Your task to perform on an android device: Go to Yahoo.com Image 0: 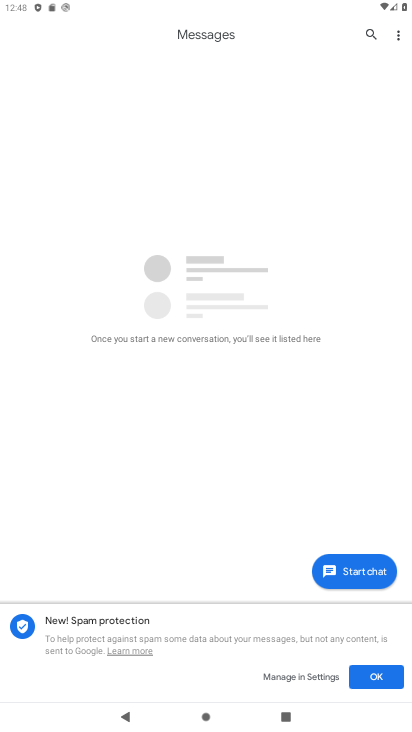
Step 0: press home button
Your task to perform on an android device: Go to Yahoo.com Image 1: 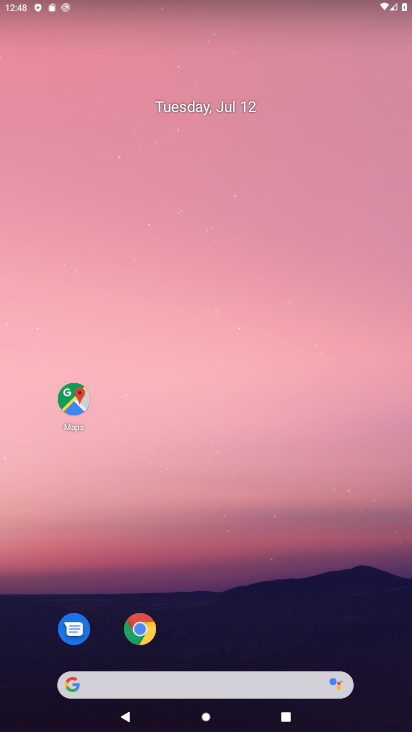
Step 1: click (140, 634)
Your task to perform on an android device: Go to Yahoo.com Image 2: 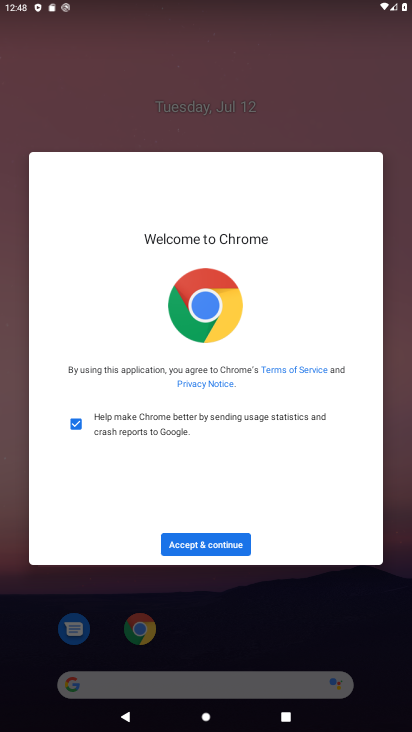
Step 2: click (213, 537)
Your task to perform on an android device: Go to Yahoo.com Image 3: 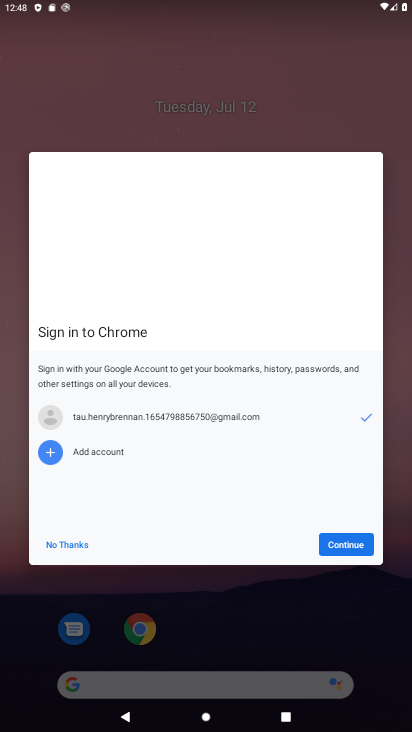
Step 3: click (333, 530)
Your task to perform on an android device: Go to Yahoo.com Image 4: 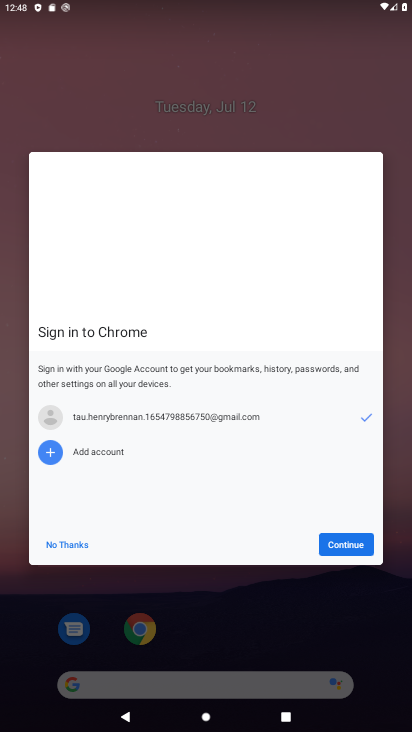
Step 4: click (329, 544)
Your task to perform on an android device: Go to Yahoo.com Image 5: 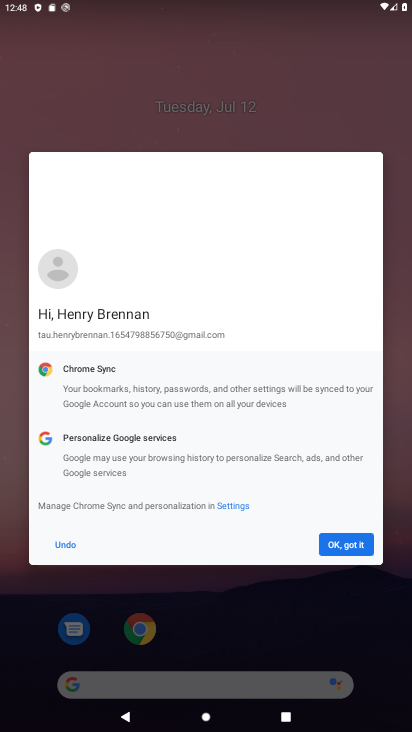
Step 5: click (327, 545)
Your task to perform on an android device: Go to Yahoo.com Image 6: 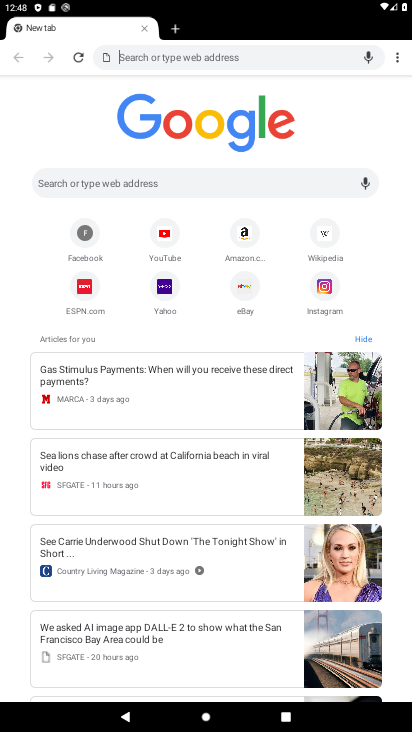
Step 6: click (168, 304)
Your task to perform on an android device: Go to Yahoo.com Image 7: 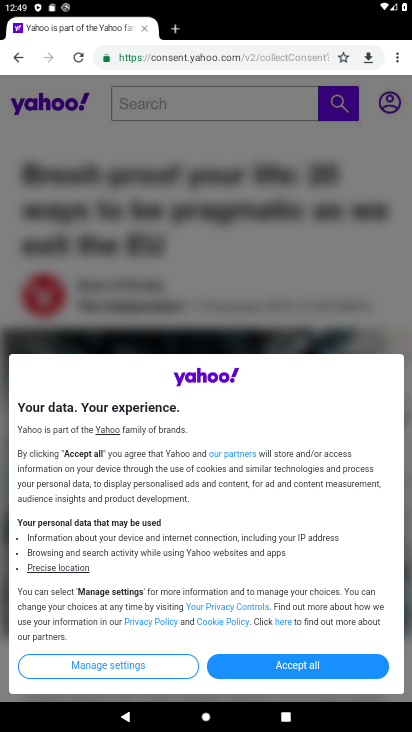
Step 7: click (283, 660)
Your task to perform on an android device: Go to Yahoo.com Image 8: 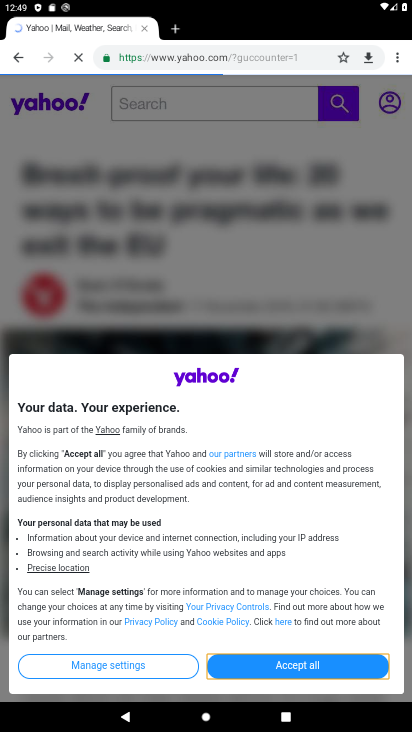
Step 8: task complete